Your task to perform on an android device: open app "Facebook Lite" Image 0: 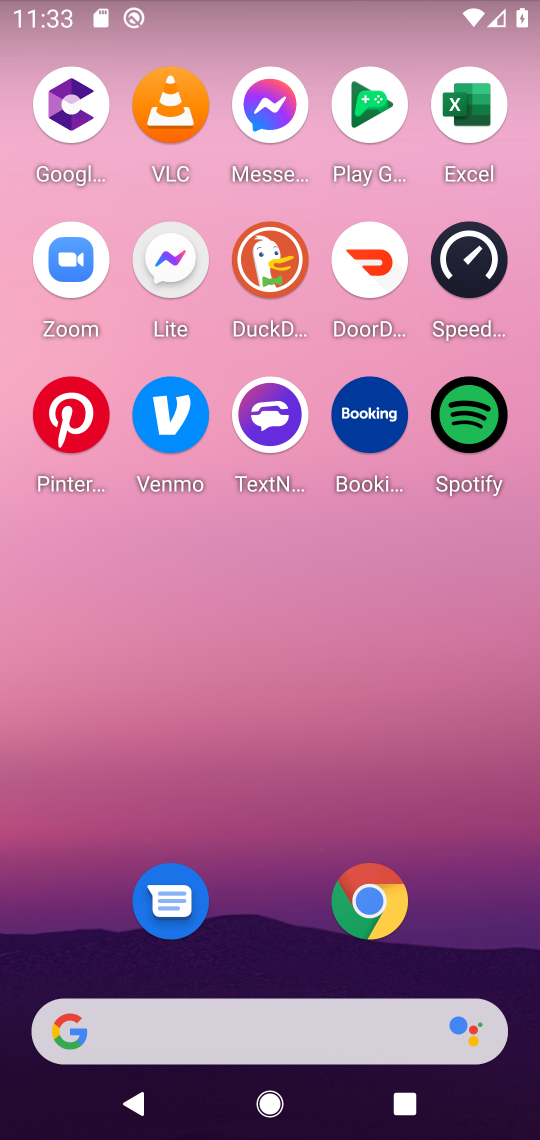
Step 0: drag from (270, 972) to (269, 303)
Your task to perform on an android device: open app "Facebook Lite" Image 1: 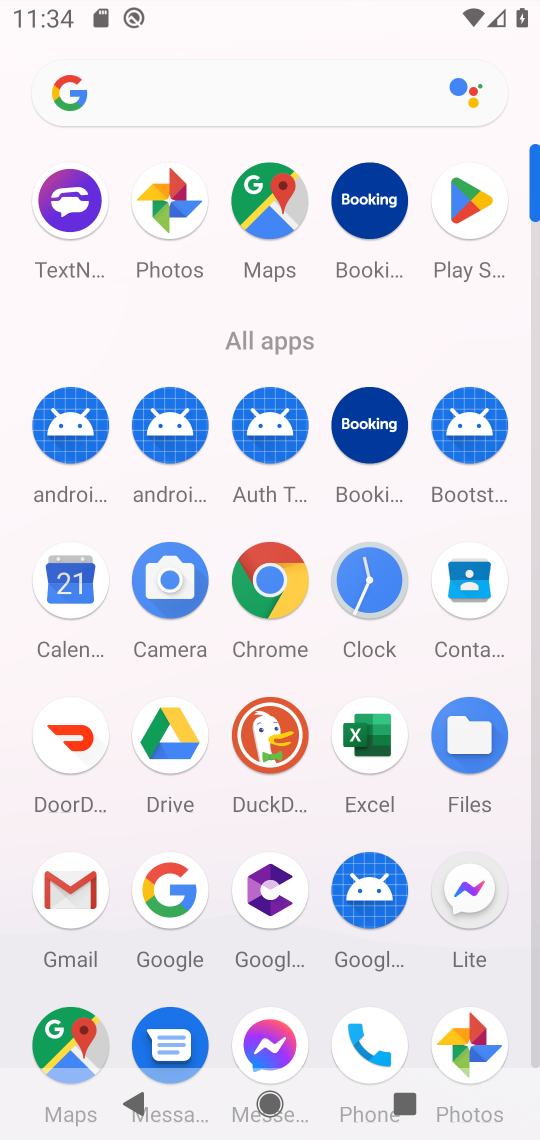
Step 1: click (469, 206)
Your task to perform on an android device: open app "Facebook Lite" Image 2: 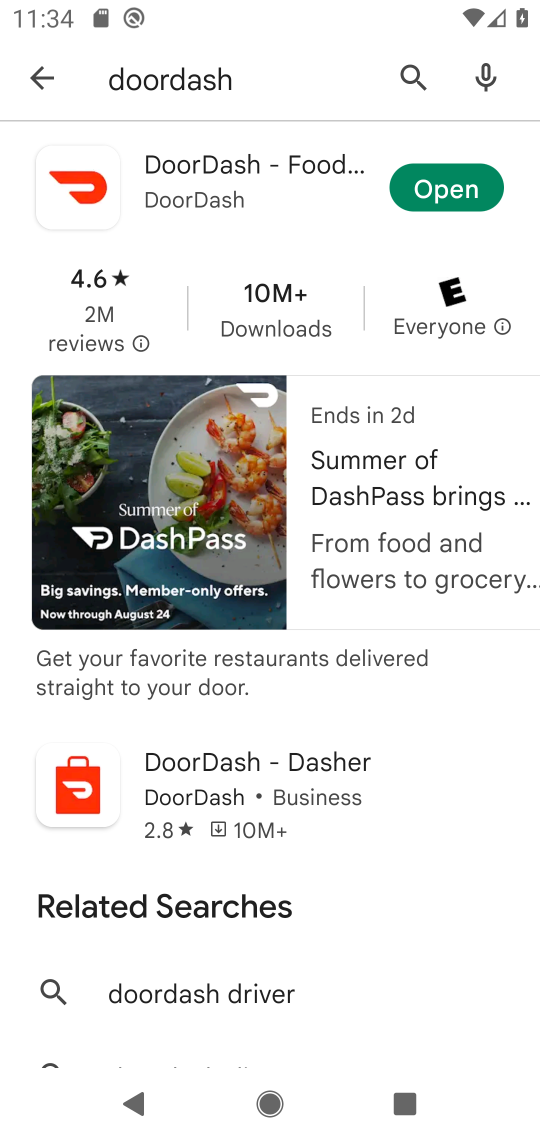
Step 2: click (420, 102)
Your task to perform on an android device: open app "Facebook Lite" Image 3: 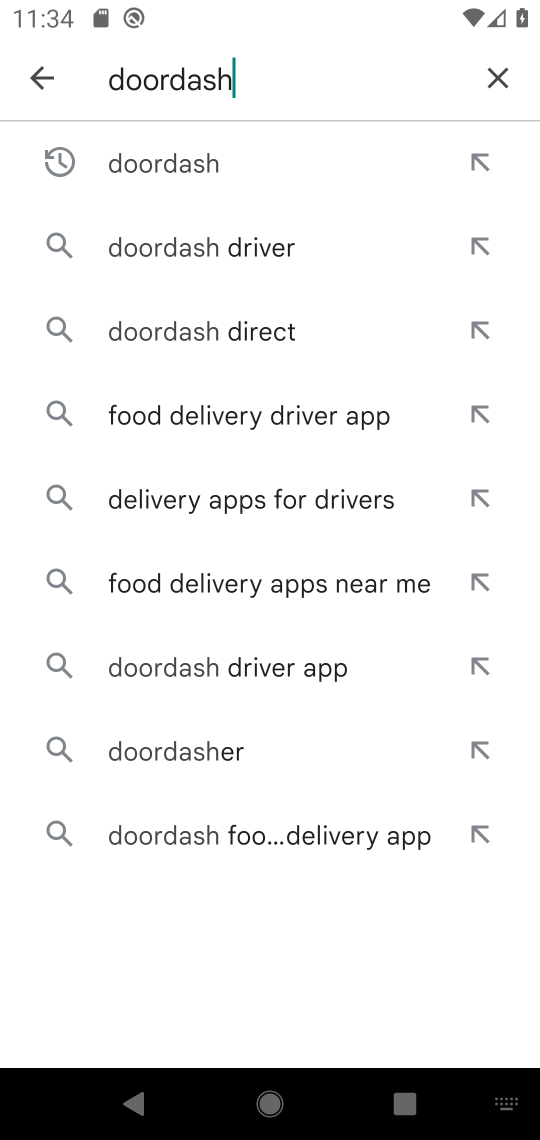
Step 3: click (483, 64)
Your task to perform on an android device: open app "Facebook Lite" Image 4: 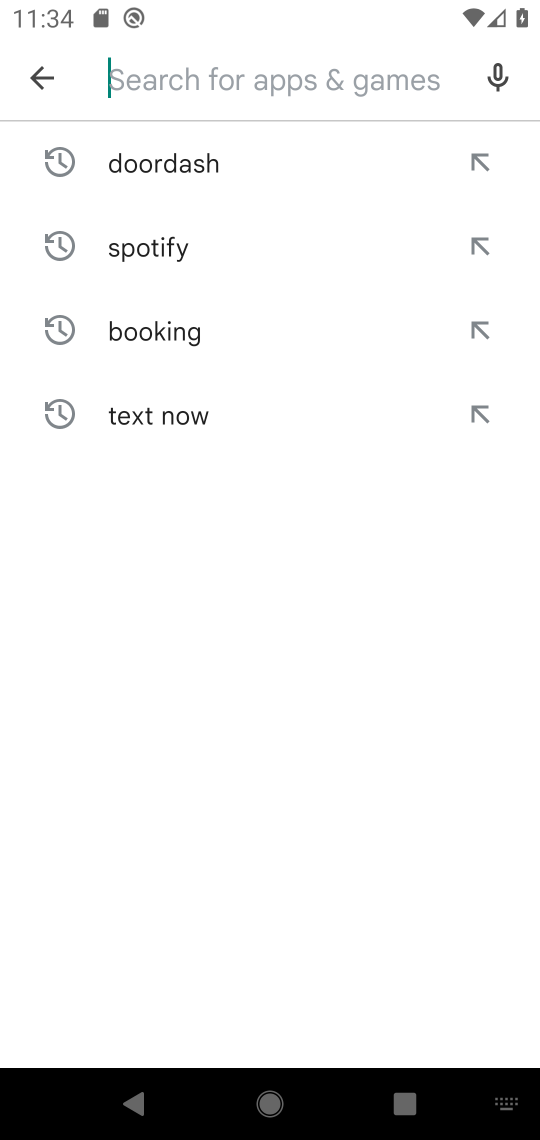
Step 4: type "facebook lite"
Your task to perform on an android device: open app "Facebook Lite" Image 5: 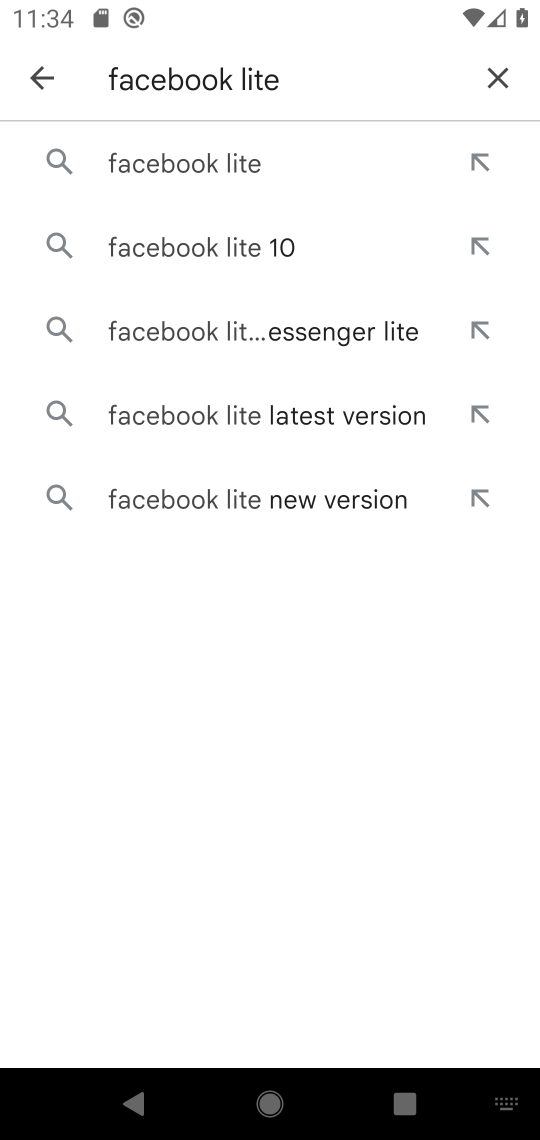
Step 5: click (190, 186)
Your task to perform on an android device: open app "Facebook Lite" Image 6: 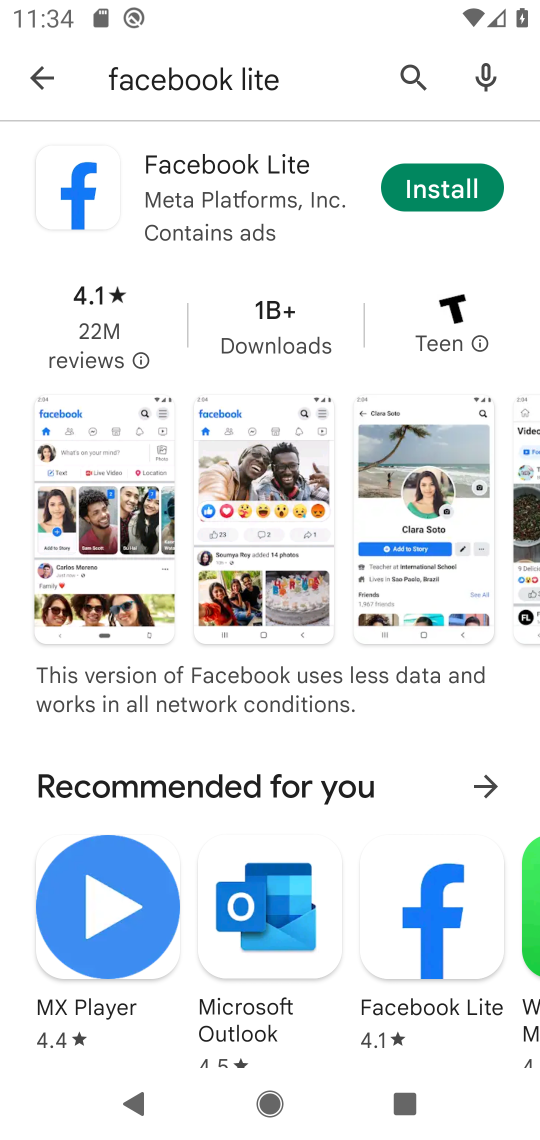
Step 6: click (404, 199)
Your task to perform on an android device: open app "Facebook Lite" Image 7: 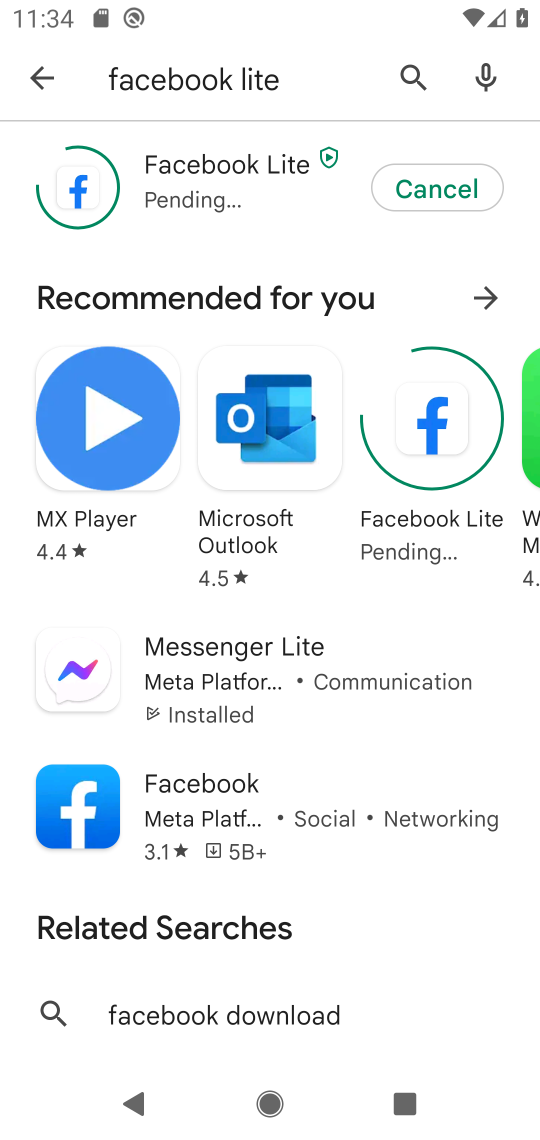
Step 7: task complete